Your task to perform on an android device: create a new album in the google photos Image 0: 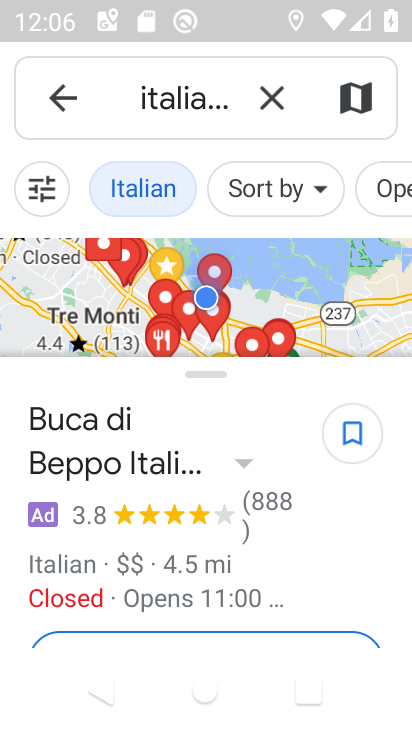
Step 0: press home button
Your task to perform on an android device: create a new album in the google photos Image 1: 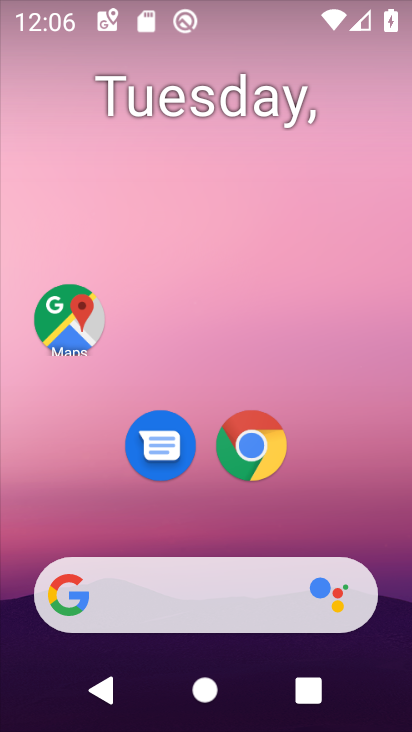
Step 1: drag from (359, 490) to (230, 2)
Your task to perform on an android device: create a new album in the google photos Image 2: 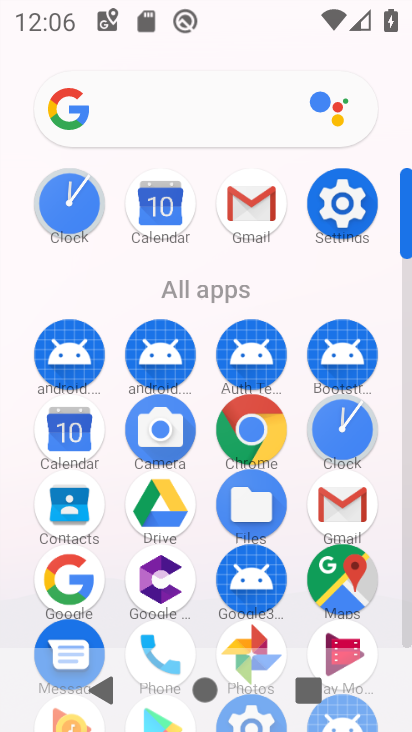
Step 2: click (238, 629)
Your task to perform on an android device: create a new album in the google photos Image 3: 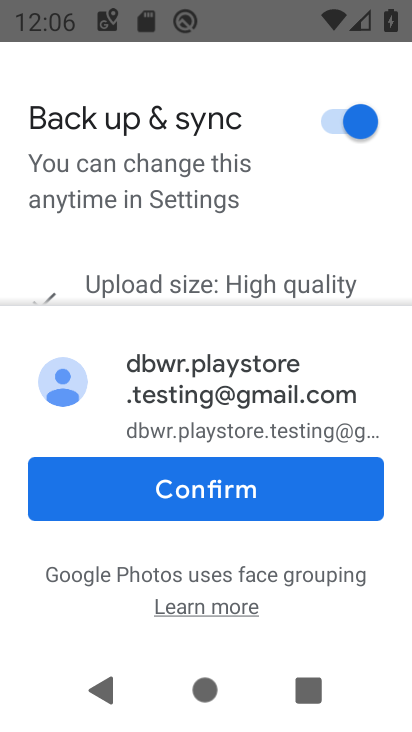
Step 3: click (202, 496)
Your task to perform on an android device: create a new album in the google photos Image 4: 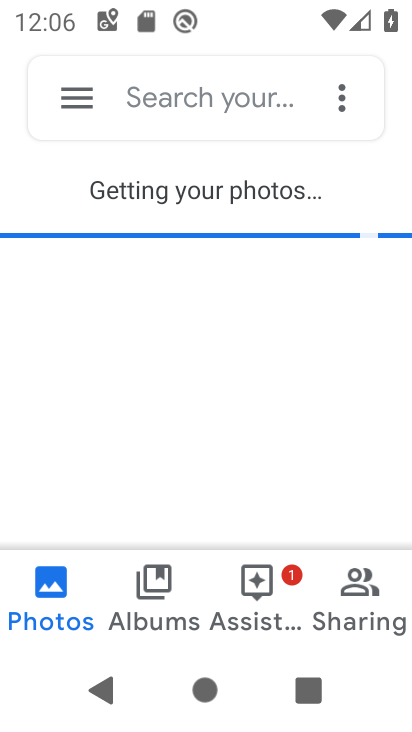
Step 4: click (341, 98)
Your task to perform on an android device: create a new album in the google photos Image 5: 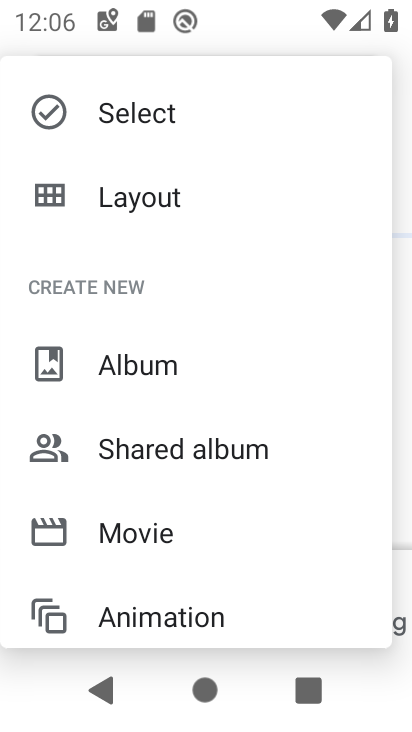
Step 5: click (147, 370)
Your task to perform on an android device: create a new album in the google photos Image 6: 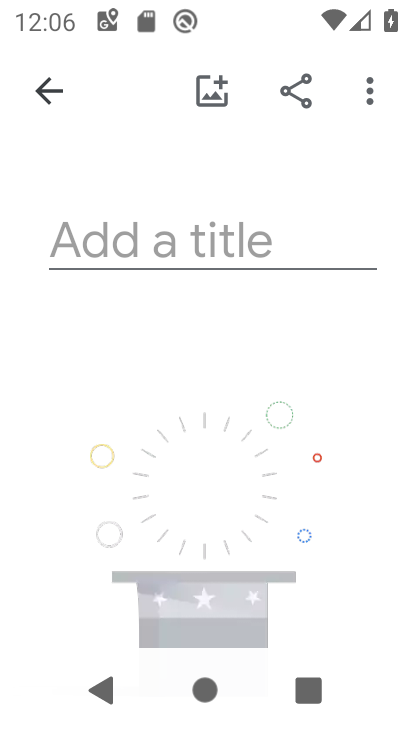
Step 6: click (106, 254)
Your task to perform on an android device: create a new album in the google photos Image 7: 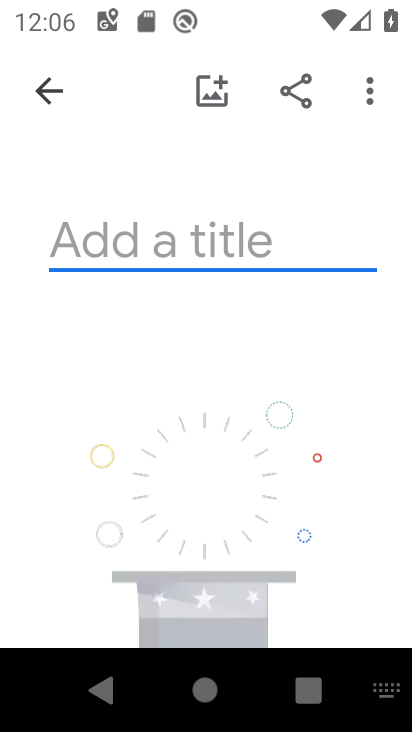
Step 7: type "dmsa"
Your task to perform on an android device: create a new album in the google photos Image 8: 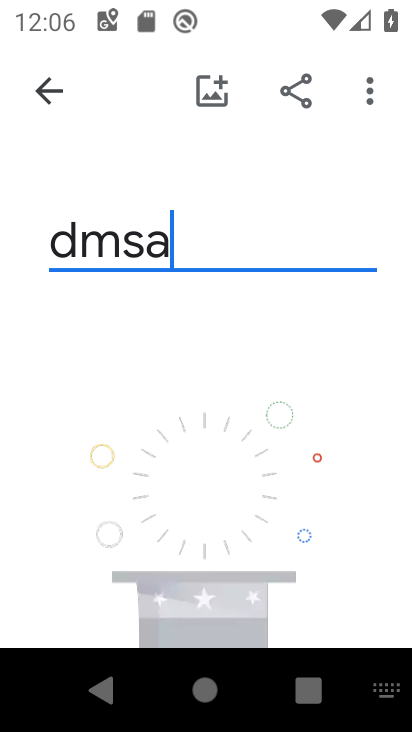
Step 8: drag from (250, 408) to (165, 62)
Your task to perform on an android device: create a new album in the google photos Image 9: 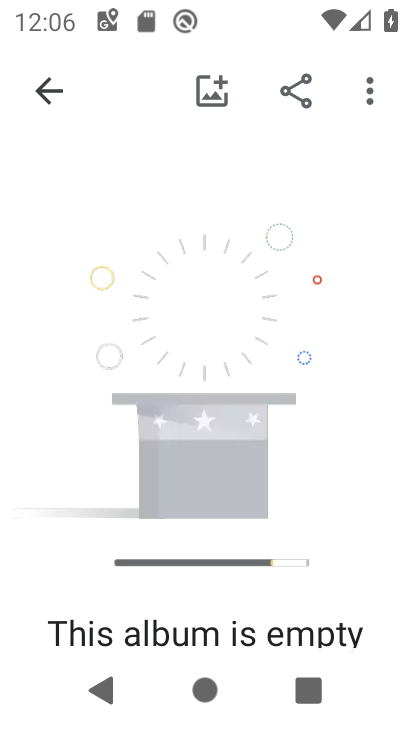
Step 9: click (215, 89)
Your task to perform on an android device: create a new album in the google photos Image 10: 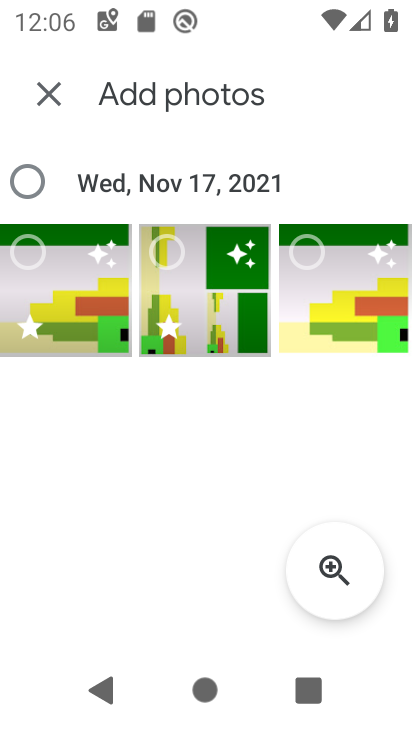
Step 10: click (39, 256)
Your task to perform on an android device: create a new album in the google photos Image 11: 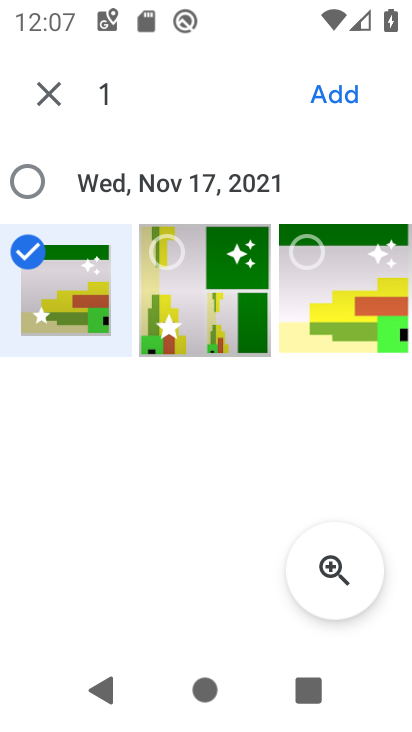
Step 11: click (339, 94)
Your task to perform on an android device: create a new album in the google photos Image 12: 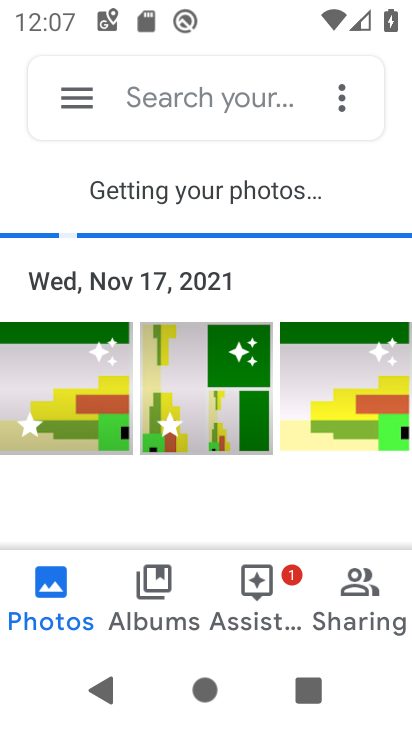
Step 12: task complete